Your task to perform on an android device: toggle sleep mode Image 0: 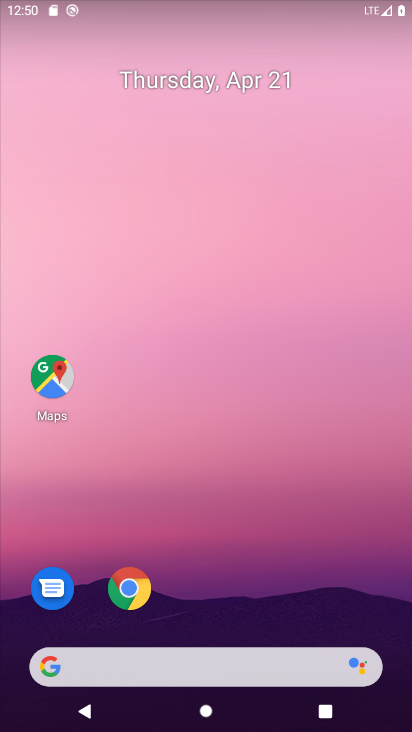
Step 0: drag from (215, 626) to (194, 42)
Your task to perform on an android device: toggle sleep mode Image 1: 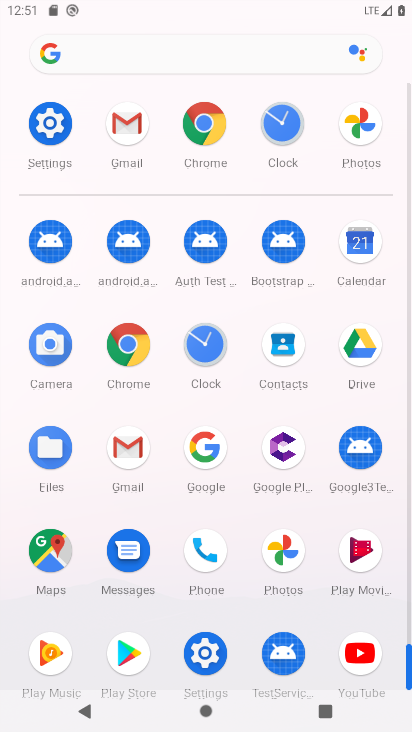
Step 1: click (201, 645)
Your task to perform on an android device: toggle sleep mode Image 2: 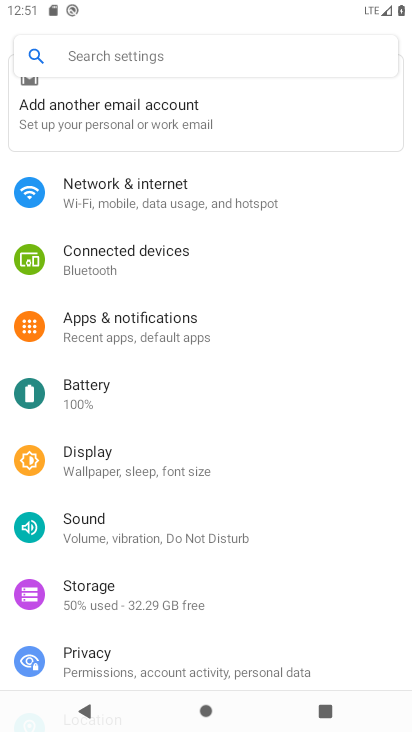
Step 2: drag from (266, 612) to (310, 122)
Your task to perform on an android device: toggle sleep mode Image 3: 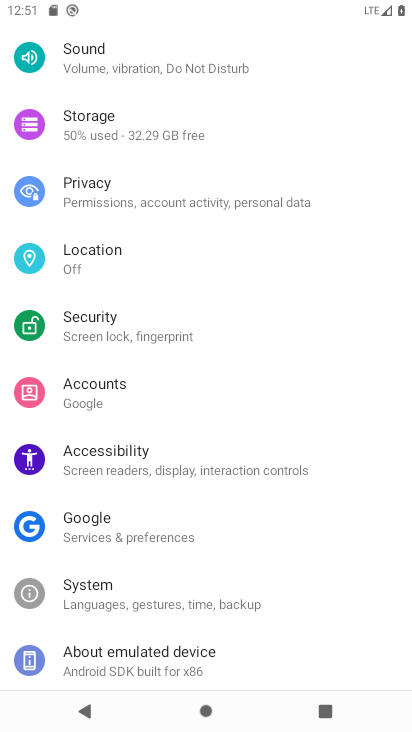
Step 3: drag from (90, 99) to (90, 633)
Your task to perform on an android device: toggle sleep mode Image 4: 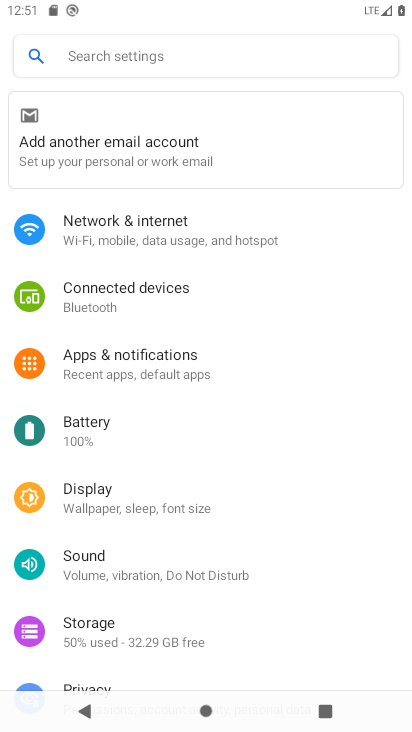
Step 4: click (125, 489)
Your task to perform on an android device: toggle sleep mode Image 5: 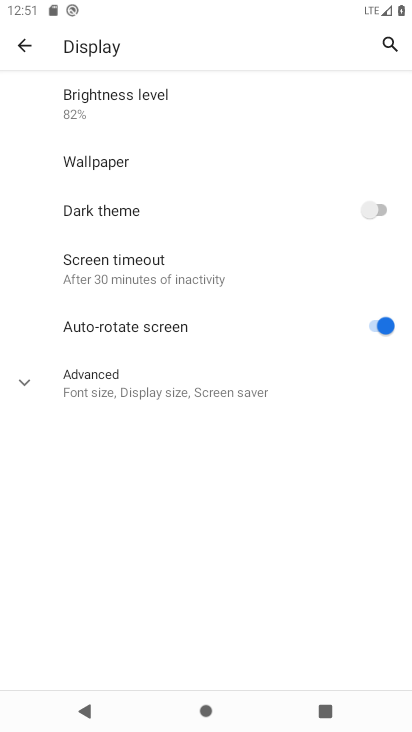
Step 5: click (23, 377)
Your task to perform on an android device: toggle sleep mode Image 6: 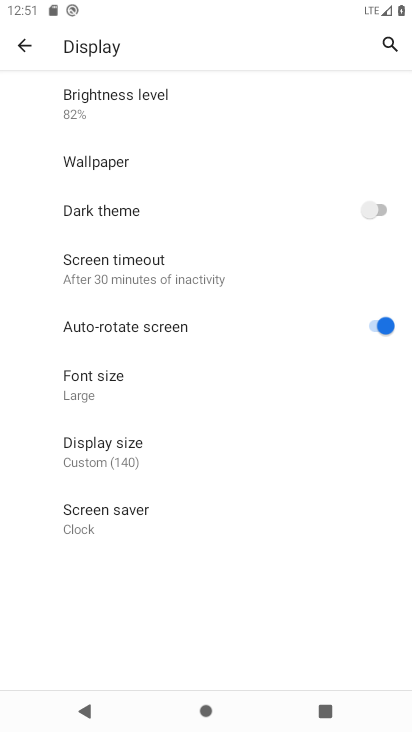
Step 6: task complete